Your task to perform on an android device: turn off notifications in google photos Image 0: 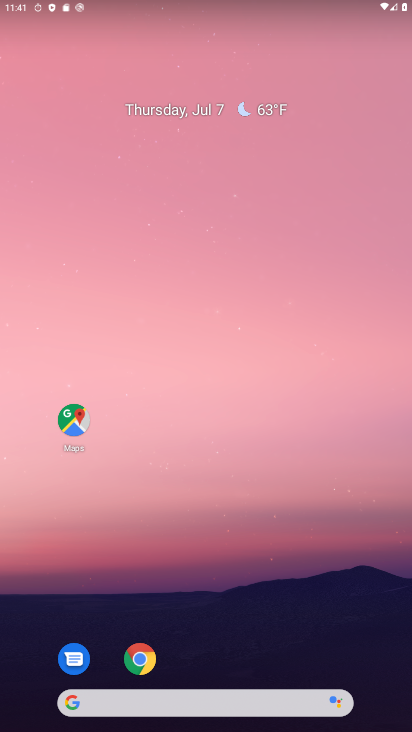
Step 0: drag from (213, 651) to (277, 0)
Your task to perform on an android device: turn off notifications in google photos Image 1: 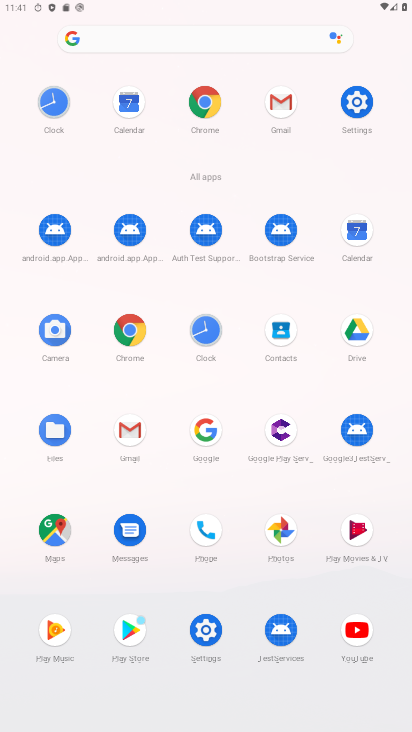
Step 1: click (290, 544)
Your task to perform on an android device: turn off notifications in google photos Image 2: 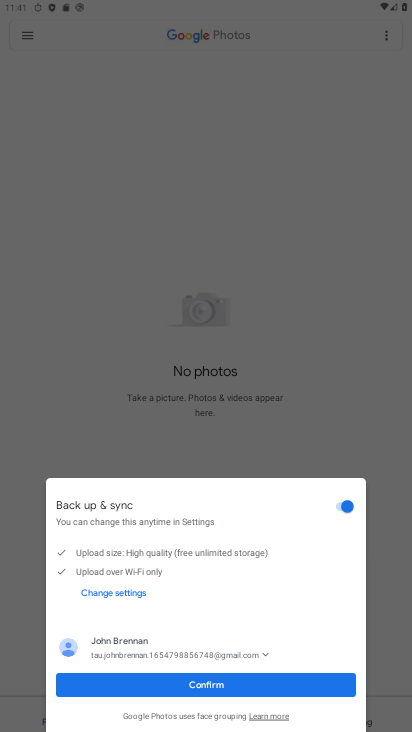
Step 2: click (257, 684)
Your task to perform on an android device: turn off notifications in google photos Image 3: 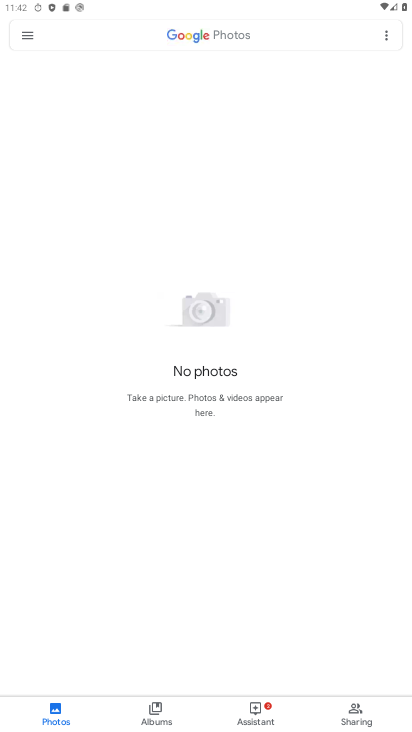
Step 3: click (32, 34)
Your task to perform on an android device: turn off notifications in google photos Image 4: 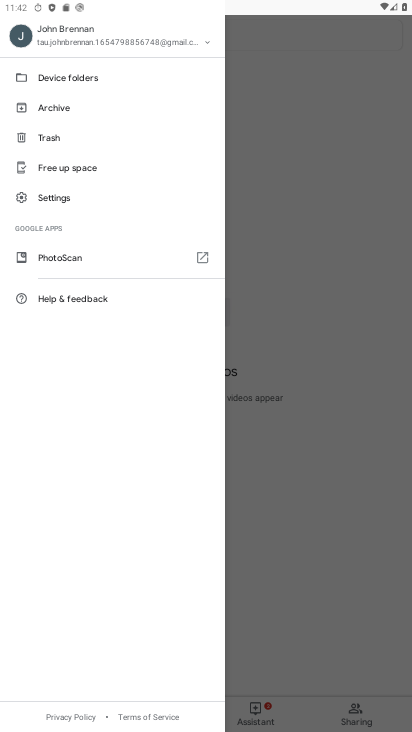
Step 4: click (59, 201)
Your task to perform on an android device: turn off notifications in google photos Image 5: 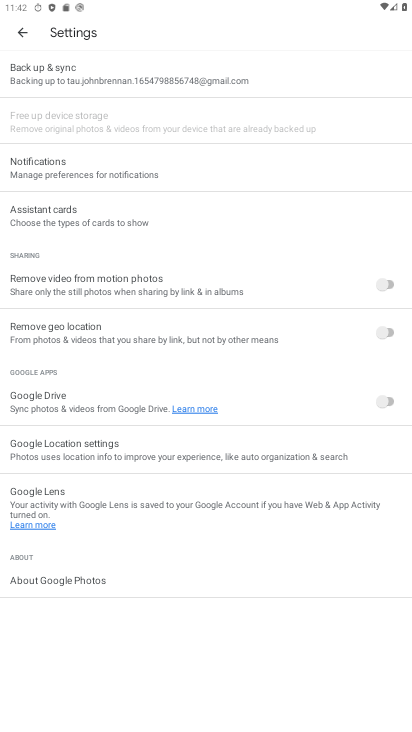
Step 5: click (130, 174)
Your task to perform on an android device: turn off notifications in google photos Image 6: 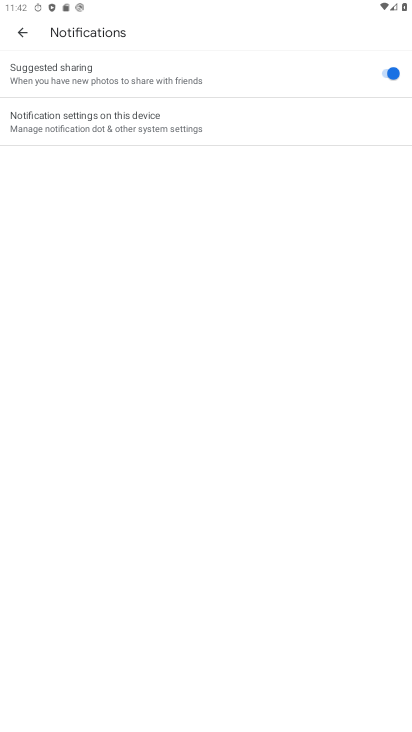
Step 6: click (120, 123)
Your task to perform on an android device: turn off notifications in google photos Image 7: 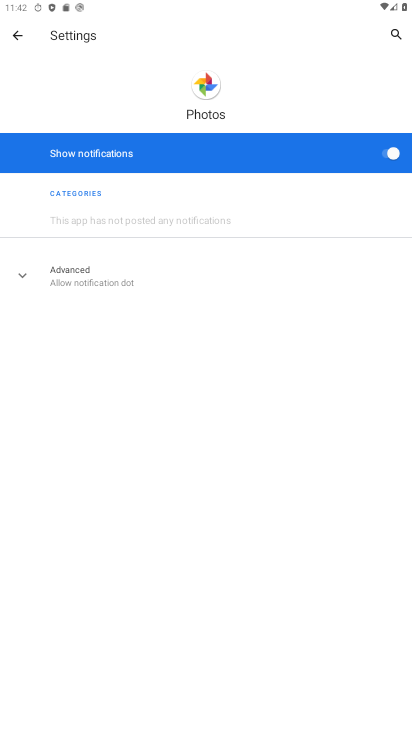
Step 7: click (374, 159)
Your task to perform on an android device: turn off notifications in google photos Image 8: 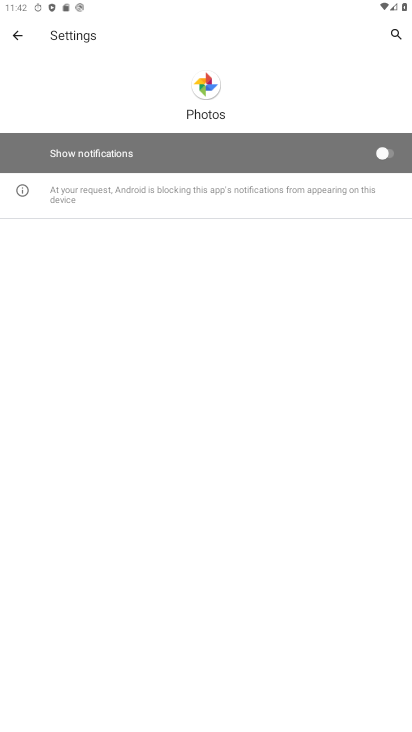
Step 8: task complete